Your task to perform on an android device: Go to display settings Image 0: 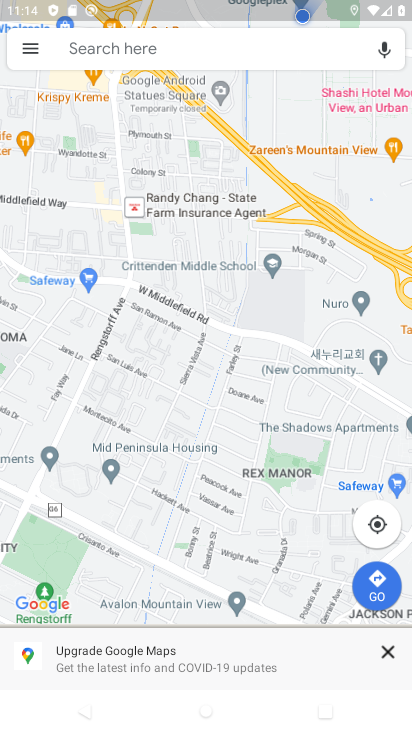
Step 0: press home button
Your task to perform on an android device: Go to display settings Image 1: 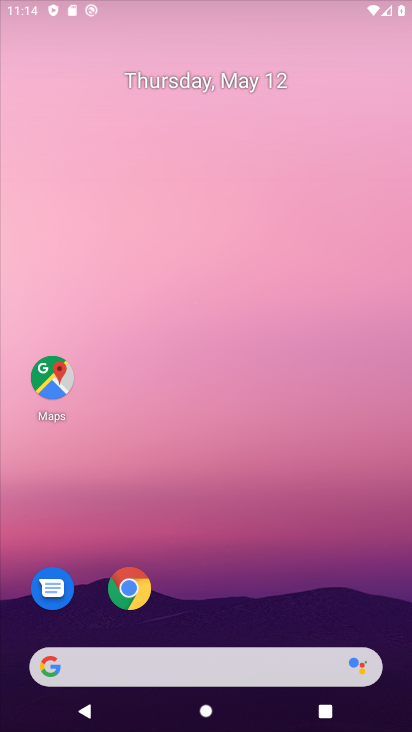
Step 1: drag from (201, 538) to (174, 178)
Your task to perform on an android device: Go to display settings Image 2: 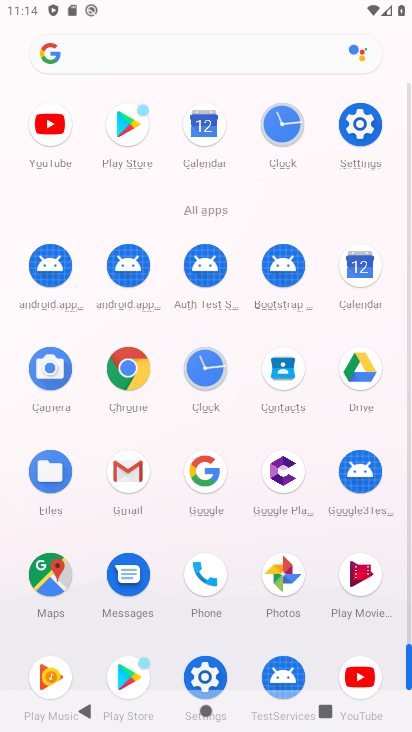
Step 2: click (379, 125)
Your task to perform on an android device: Go to display settings Image 3: 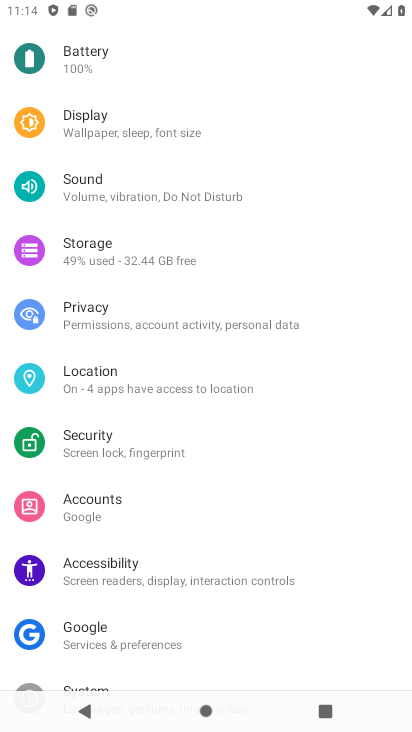
Step 3: click (148, 130)
Your task to perform on an android device: Go to display settings Image 4: 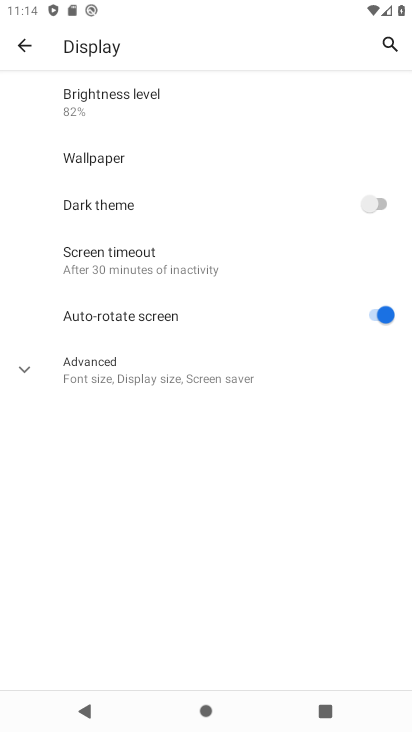
Step 4: task complete